Your task to perform on an android device: Go to internet settings Image 0: 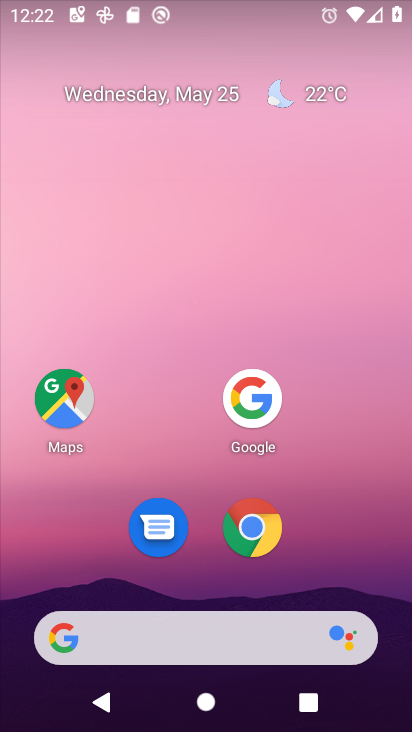
Step 0: press home button
Your task to perform on an android device: Go to internet settings Image 1: 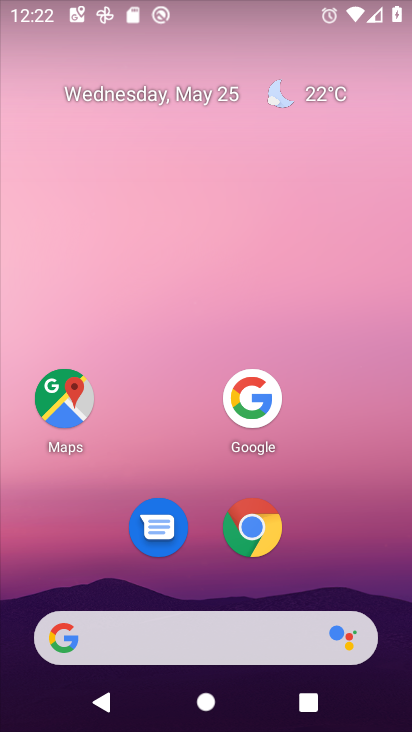
Step 1: drag from (215, 642) to (362, 80)
Your task to perform on an android device: Go to internet settings Image 2: 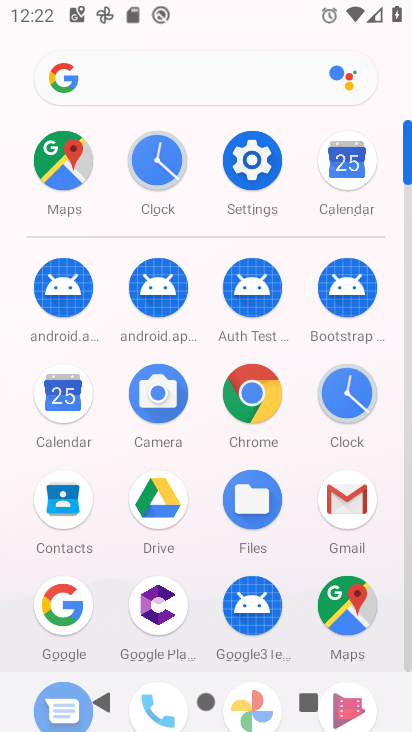
Step 2: click (242, 159)
Your task to perform on an android device: Go to internet settings Image 3: 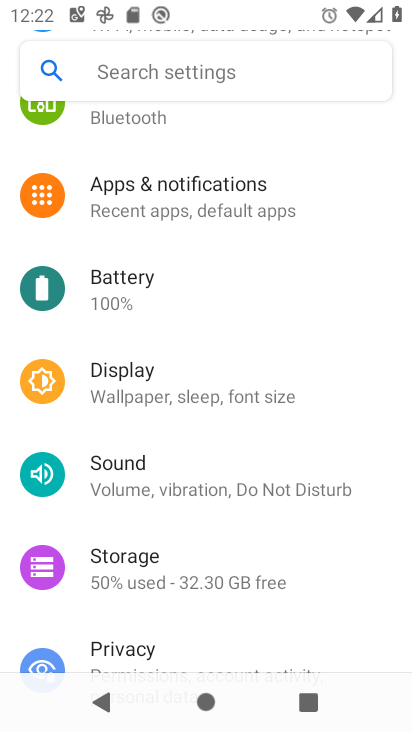
Step 3: drag from (310, 160) to (201, 614)
Your task to perform on an android device: Go to internet settings Image 4: 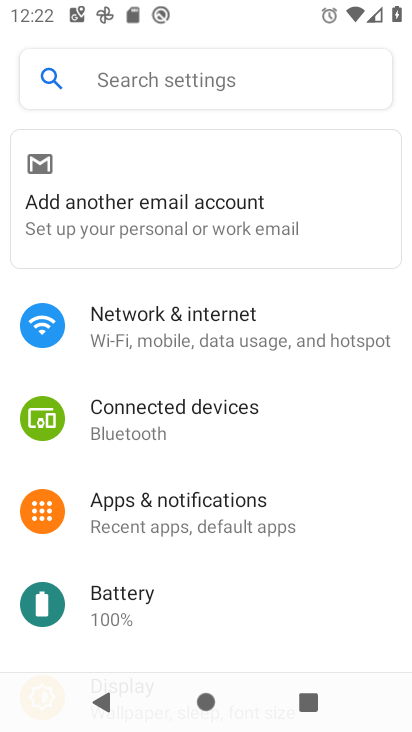
Step 4: click (192, 311)
Your task to perform on an android device: Go to internet settings Image 5: 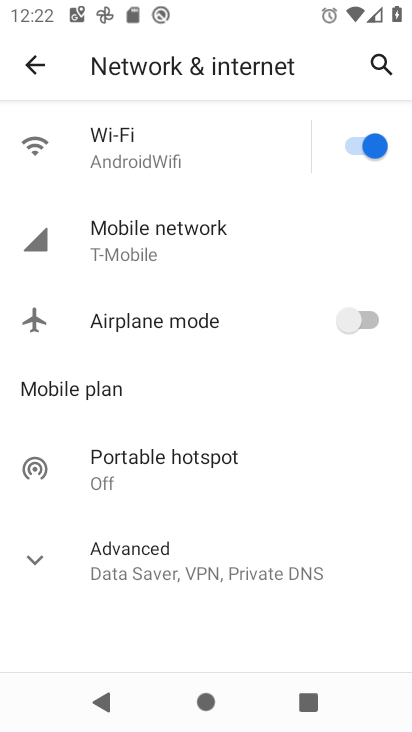
Step 5: task complete